Your task to perform on an android device: manage bookmarks in the chrome app Image 0: 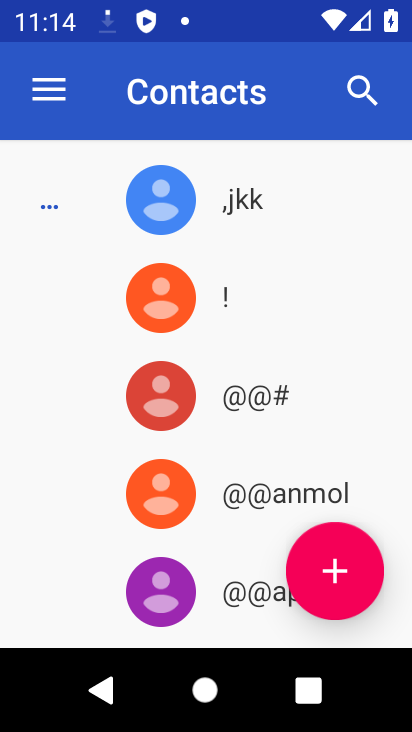
Step 0: press home button
Your task to perform on an android device: manage bookmarks in the chrome app Image 1: 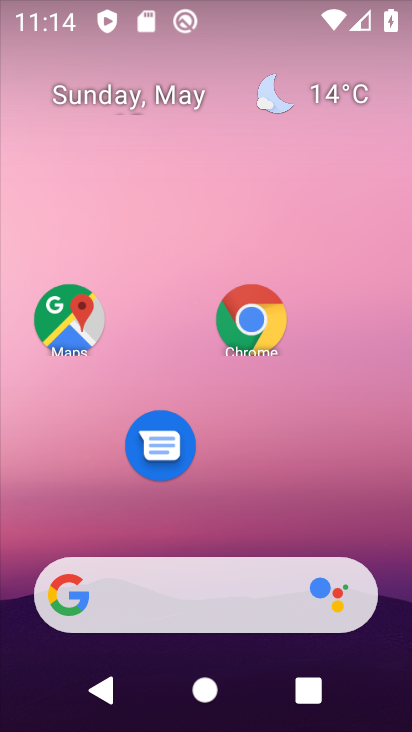
Step 1: drag from (177, 599) to (341, 25)
Your task to perform on an android device: manage bookmarks in the chrome app Image 2: 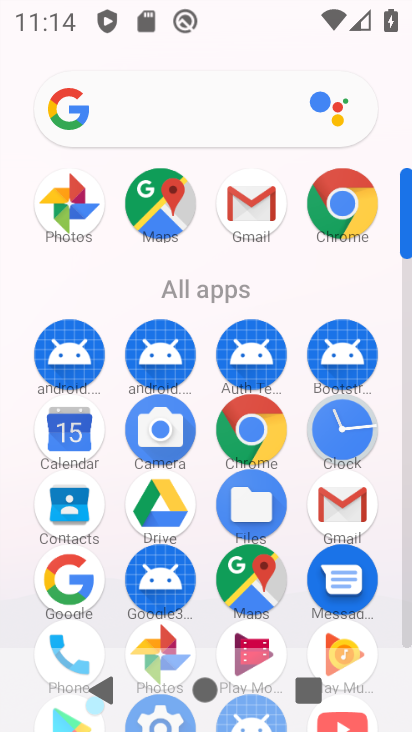
Step 2: click (344, 213)
Your task to perform on an android device: manage bookmarks in the chrome app Image 3: 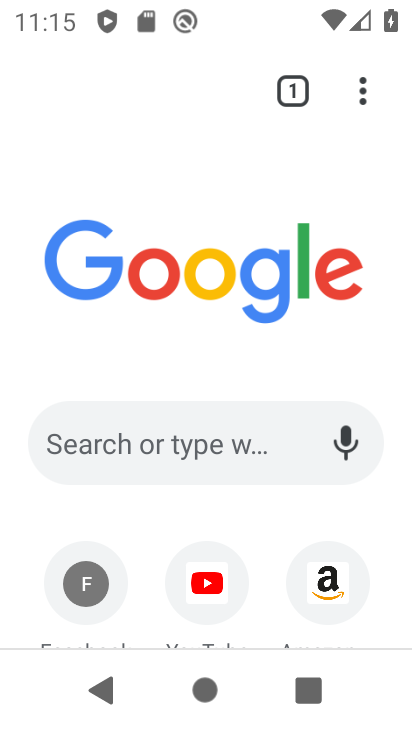
Step 3: task complete